Your task to perform on an android device: turn pop-ups off in chrome Image 0: 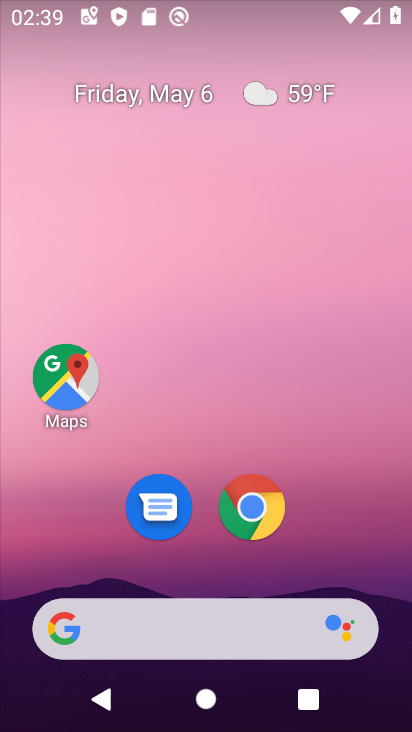
Step 0: click (254, 513)
Your task to perform on an android device: turn pop-ups off in chrome Image 1: 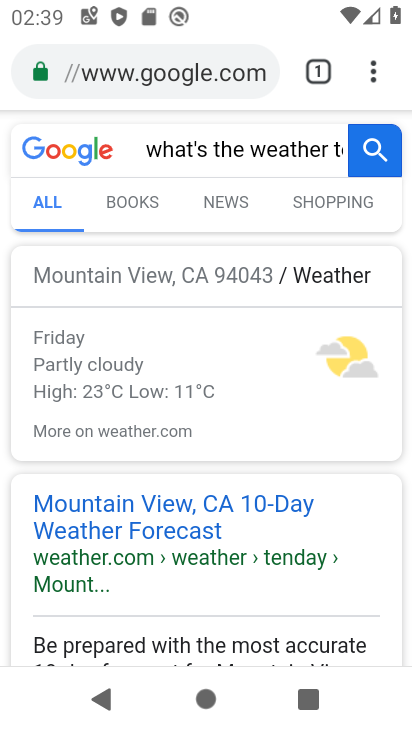
Step 1: drag from (372, 75) to (238, 514)
Your task to perform on an android device: turn pop-ups off in chrome Image 2: 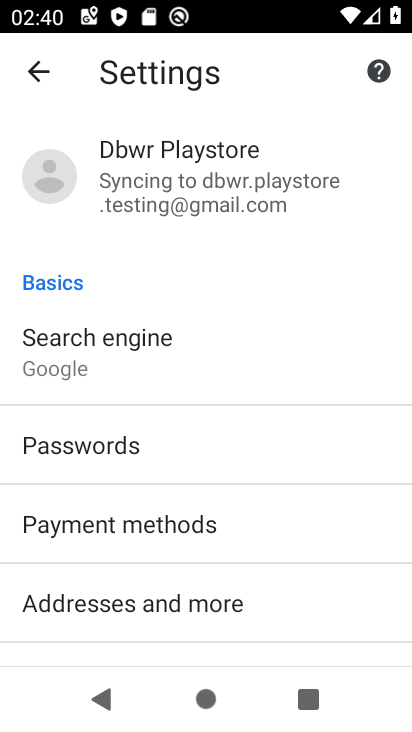
Step 2: drag from (261, 604) to (265, 298)
Your task to perform on an android device: turn pop-ups off in chrome Image 3: 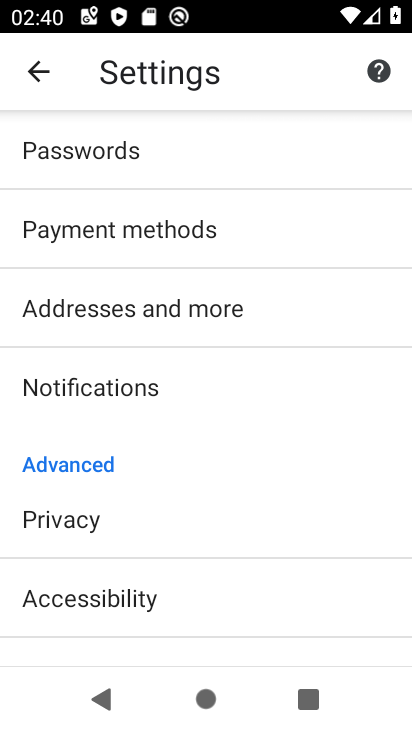
Step 3: drag from (241, 590) to (243, 355)
Your task to perform on an android device: turn pop-ups off in chrome Image 4: 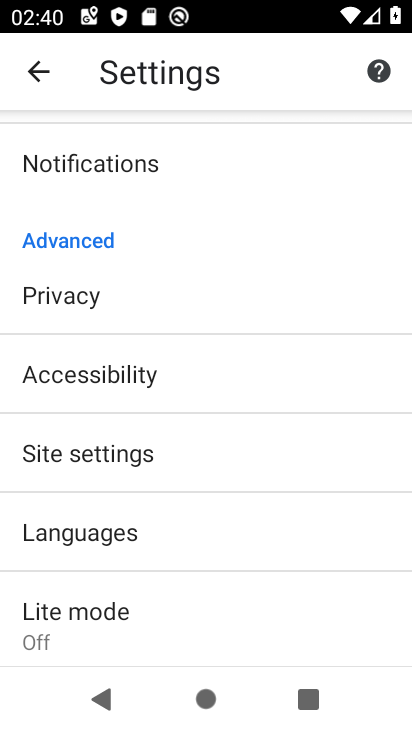
Step 4: click (175, 451)
Your task to perform on an android device: turn pop-ups off in chrome Image 5: 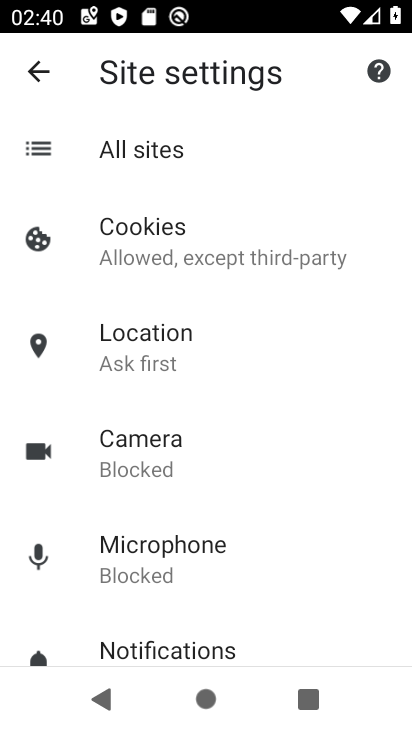
Step 5: drag from (268, 582) to (298, 305)
Your task to perform on an android device: turn pop-ups off in chrome Image 6: 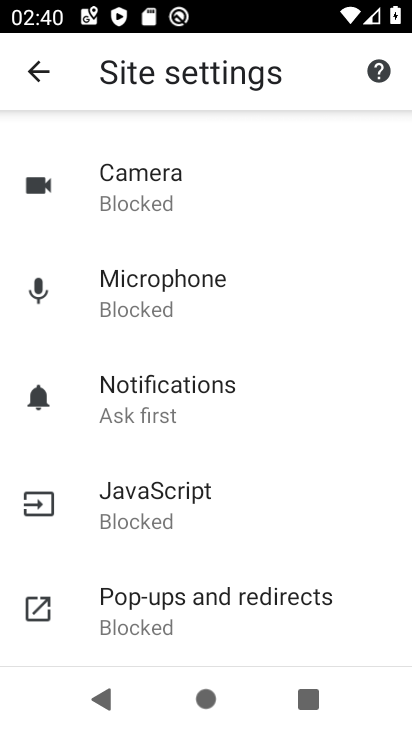
Step 6: click (263, 625)
Your task to perform on an android device: turn pop-ups off in chrome Image 7: 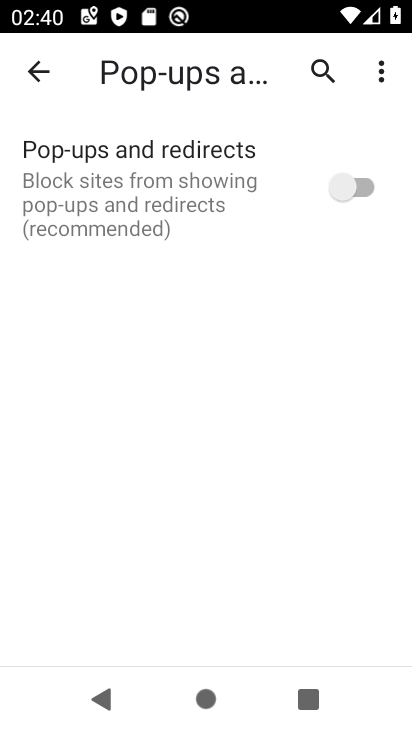
Step 7: task complete